Your task to perform on an android device: Open CNN.com Image 0: 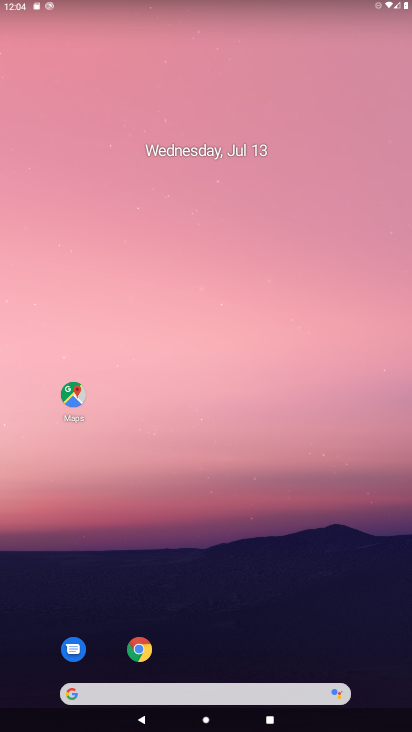
Step 0: click (138, 652)
Your task to perform on an android device: Open CNN.com Image 1: 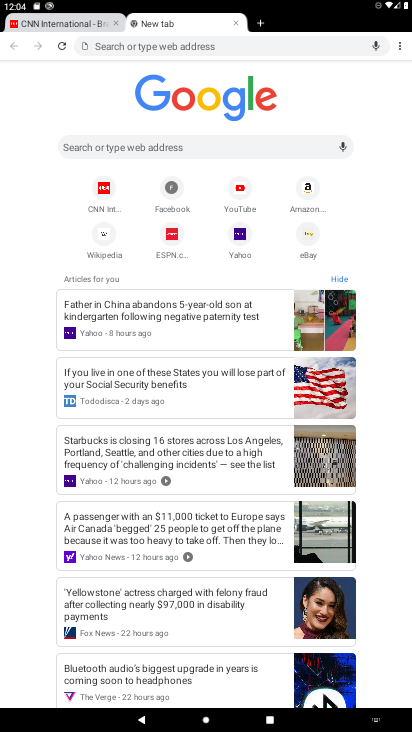
Step 1: click (132, 140)
Your task to perform on an android device: Open CNN.com Image 2: 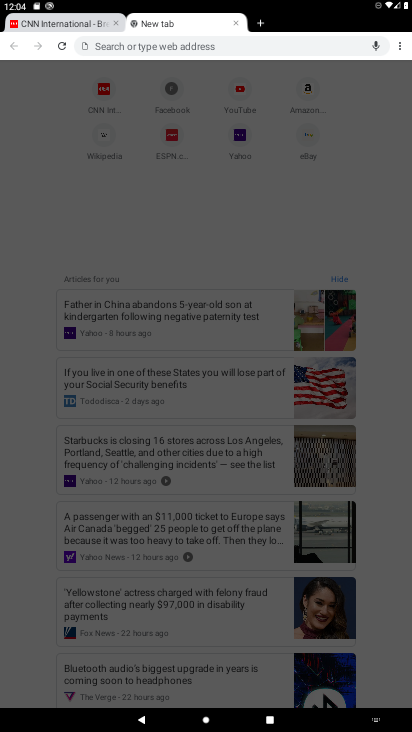
Step 2: type "CNN.com"
Your task to perform on an android device: Open CNN.com Image 3: 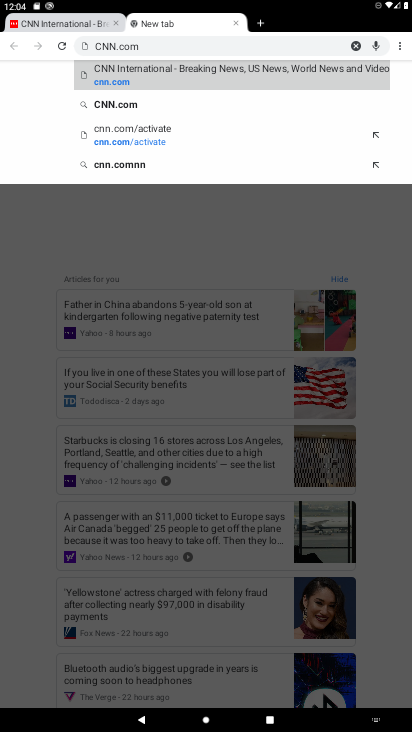
Step 3: click (110, 65)
Your task to perform on an android device: Open CNN.com Image 4: 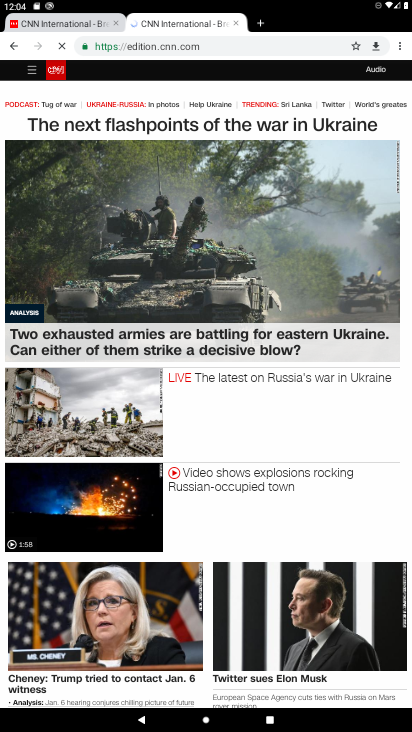
Step 4: drag from (265, 537) to (264, 184)
Your task to perform on an android device: Open CNN.com Image 5: 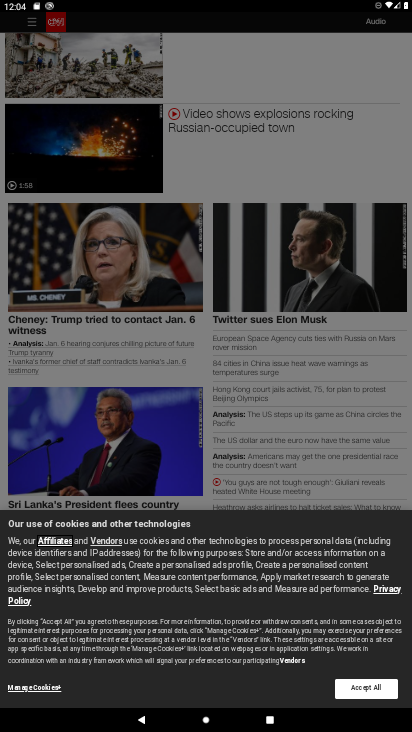
Step 5: click (354, 689)
Your task to perform on an android device: Open CNN.com Image 6: 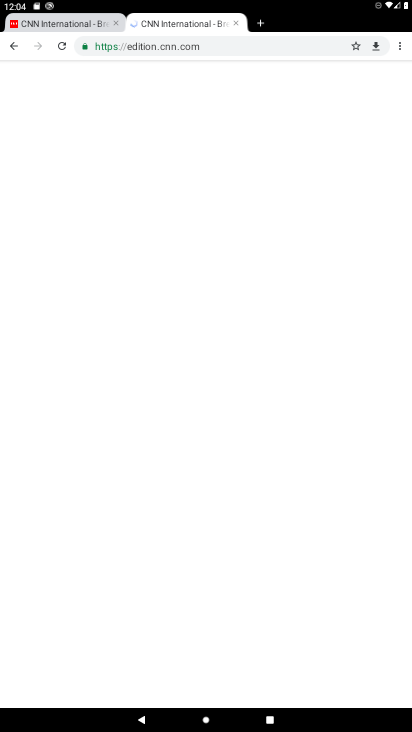
Step 6: task complete